Your task to perform on an android device: change the clock style Image 0: 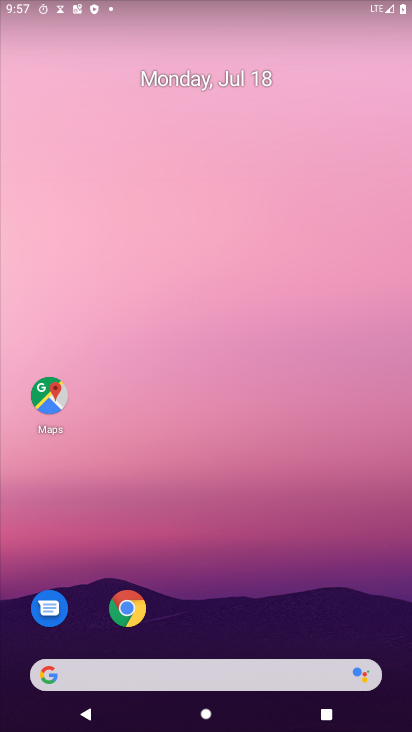
Step 0: drag from (178, 536) to (195, 256)
Your task to perform on an android device: change the clock style Image 1: 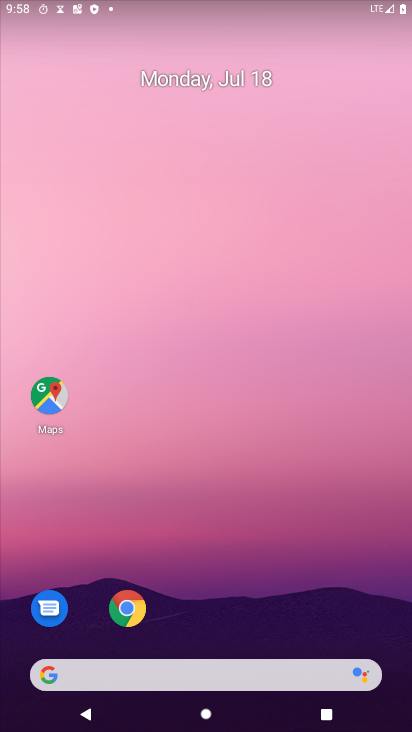
Step 1: drag from (177, 583) to (187, 64)
Your task to perform on an android device: change the clock style Image 2: 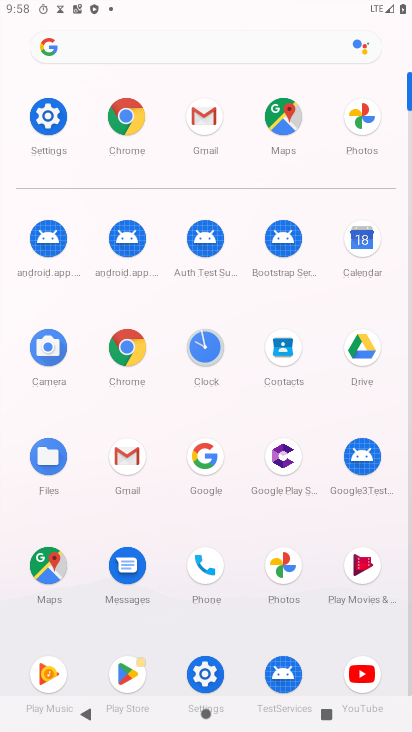
Step 2: click (212, 368)
Your task to perform on an android device: change the clock style Image 3: 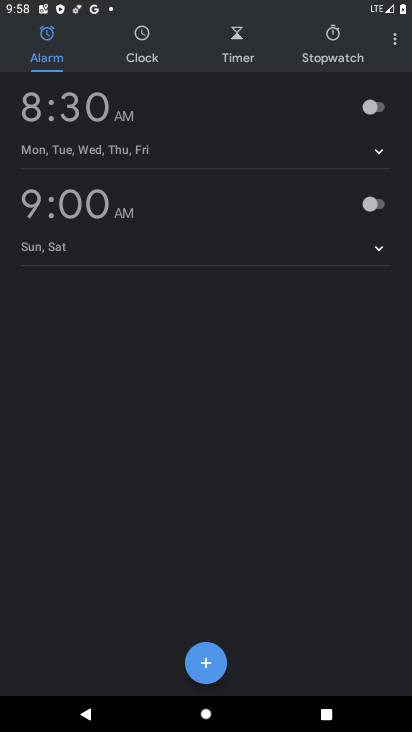
Step 3: click (395, 33)
Your task to perform on an android device: change the clock style Image 4: 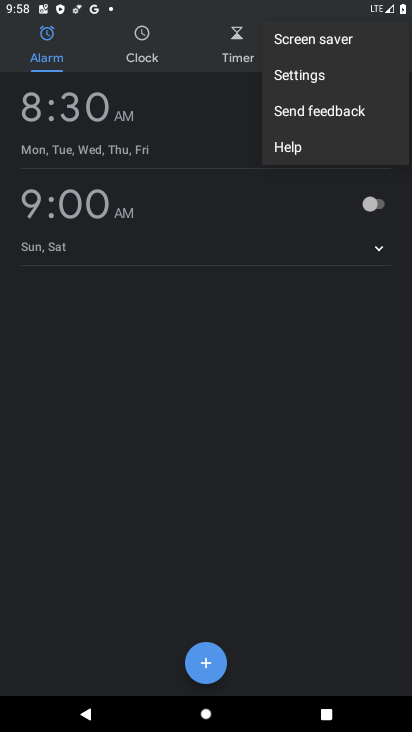
Step 4: click (321, 76)
Your task to perform on an android device: change the clock style Image 5: 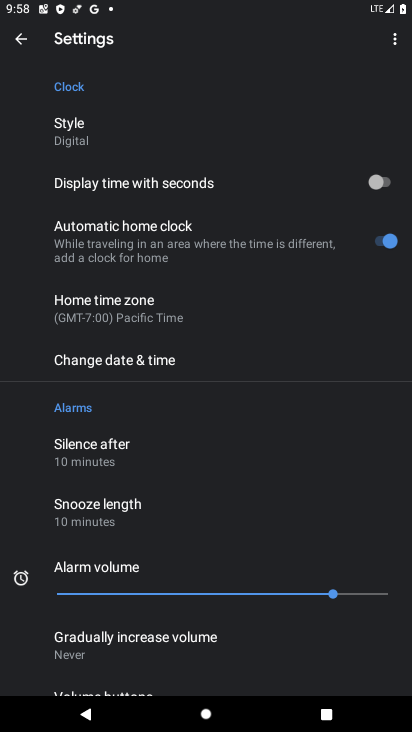
Step 5: click (83, 133)
Your task to perform on an android device: change the clock style Image 6: 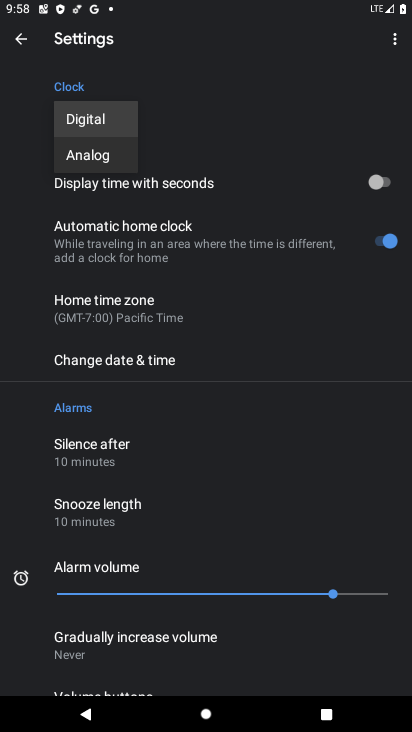
Step 6: click (88, 162)
Your task to perform on an android device: change the clock style Image 7: 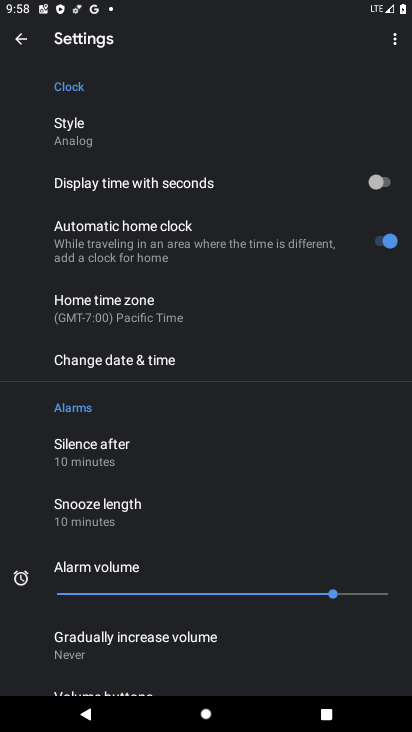
Step 7: task complete